Your task to perform on an android device: Search for seafood restaurants on Google Maps Image 0: 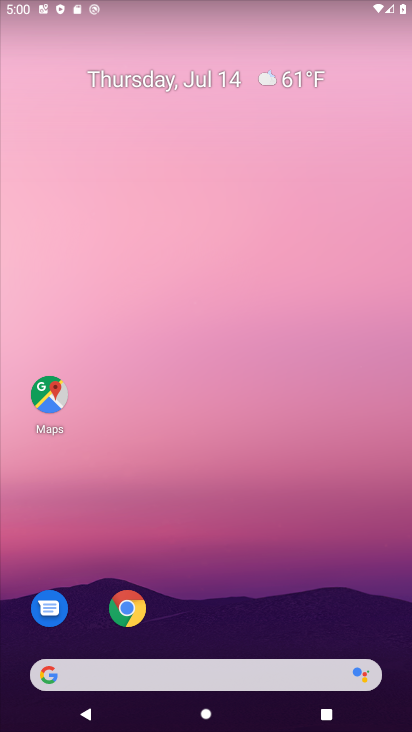
Step 0: drag from (351, 588) to (124, 0)
Your task to perform on an android device: Search for seafood restaurants on Google Maps Image 1: 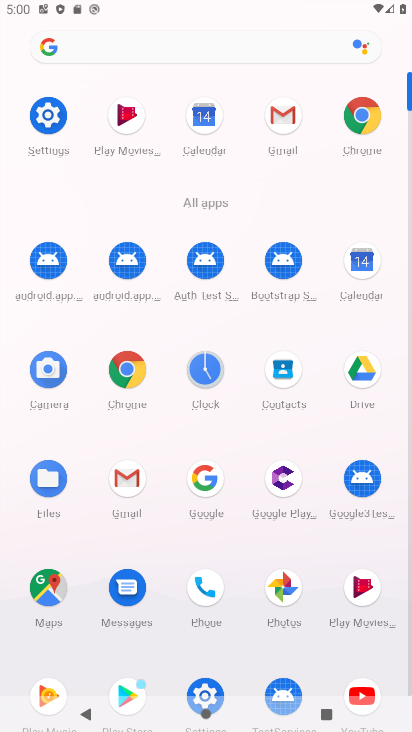
Step 1: click (37, 593)
Your task to perform on an android device: Search for seafood restaurants on Google Maps Image 2: 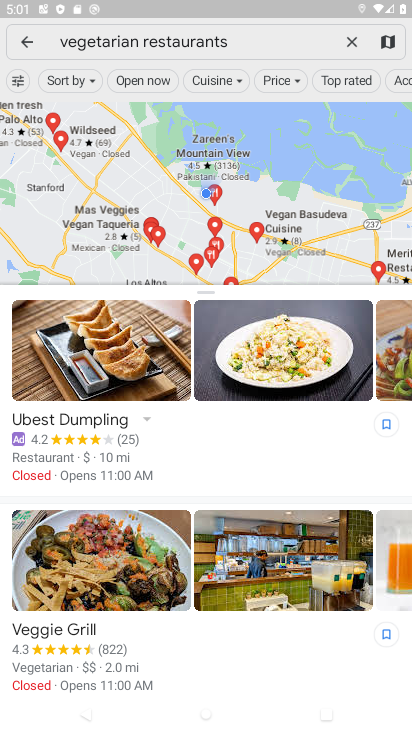
Step 2: task complete